Your task to perform on an android device: Search for usb-a to usb-b on amazon, select the first entry, and add it to the cart. Image 0: 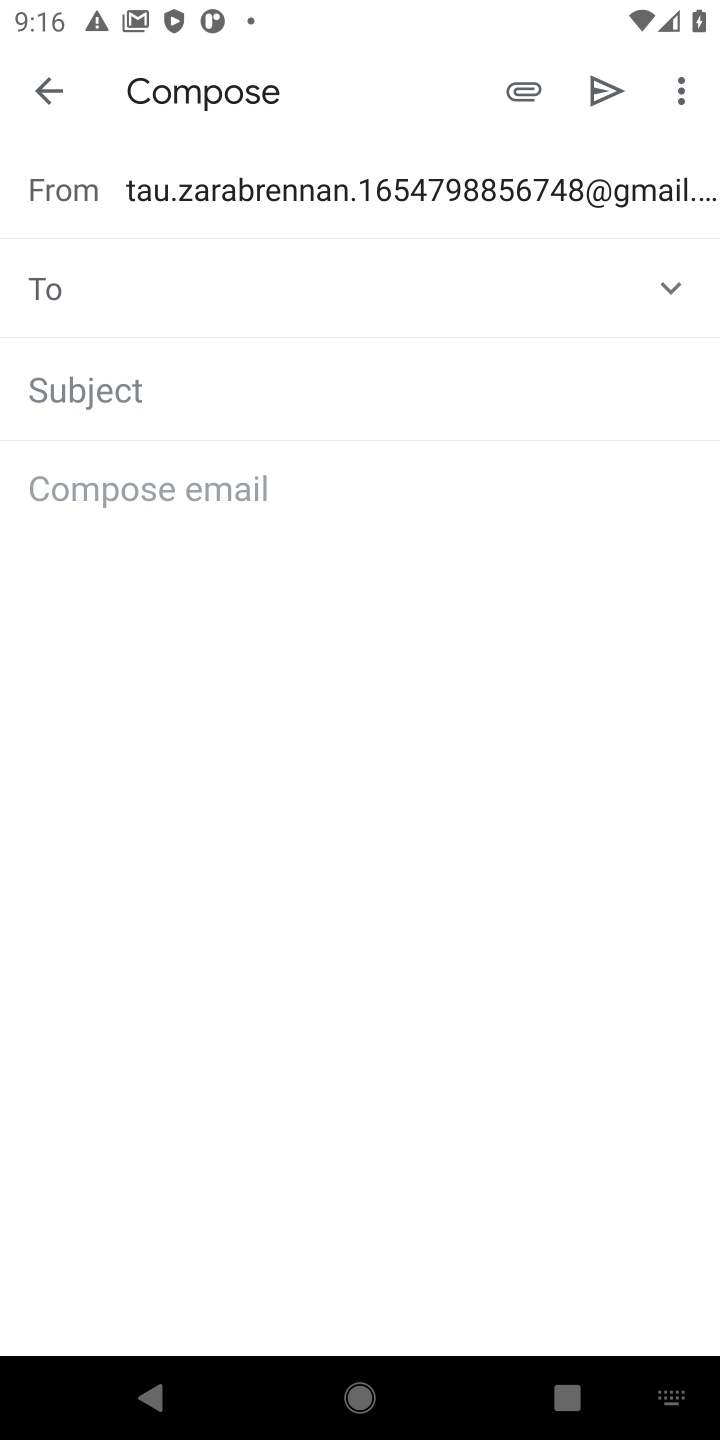
Step 0: press home button
Your task to perform on an android device: Search for usb-a to usb-b on amazon, select the first entry, and add it to the cart. Image 1: 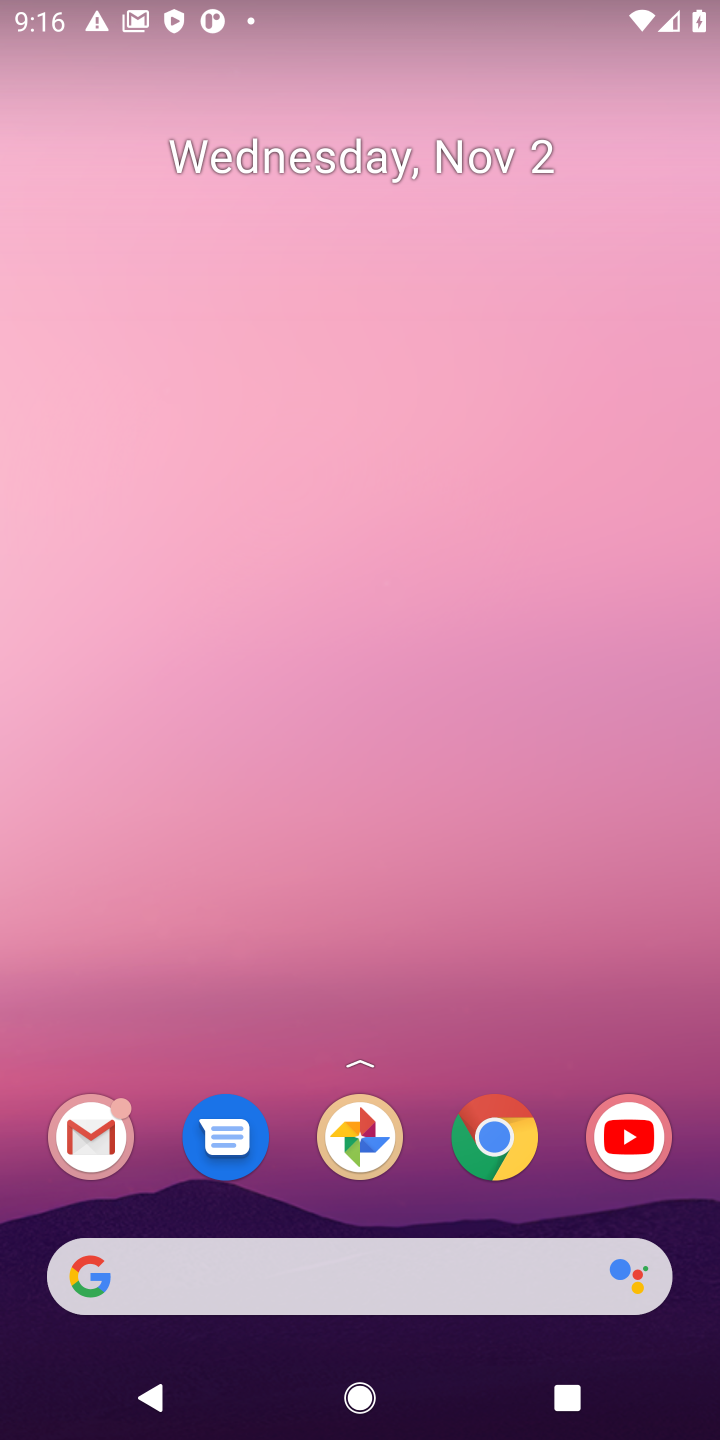
Step 1: click (499, 1140)
Your task to perform on an android device: Search for usb-a to usb-b on amazon, select the first entry, and add it to the cart. Image 2: 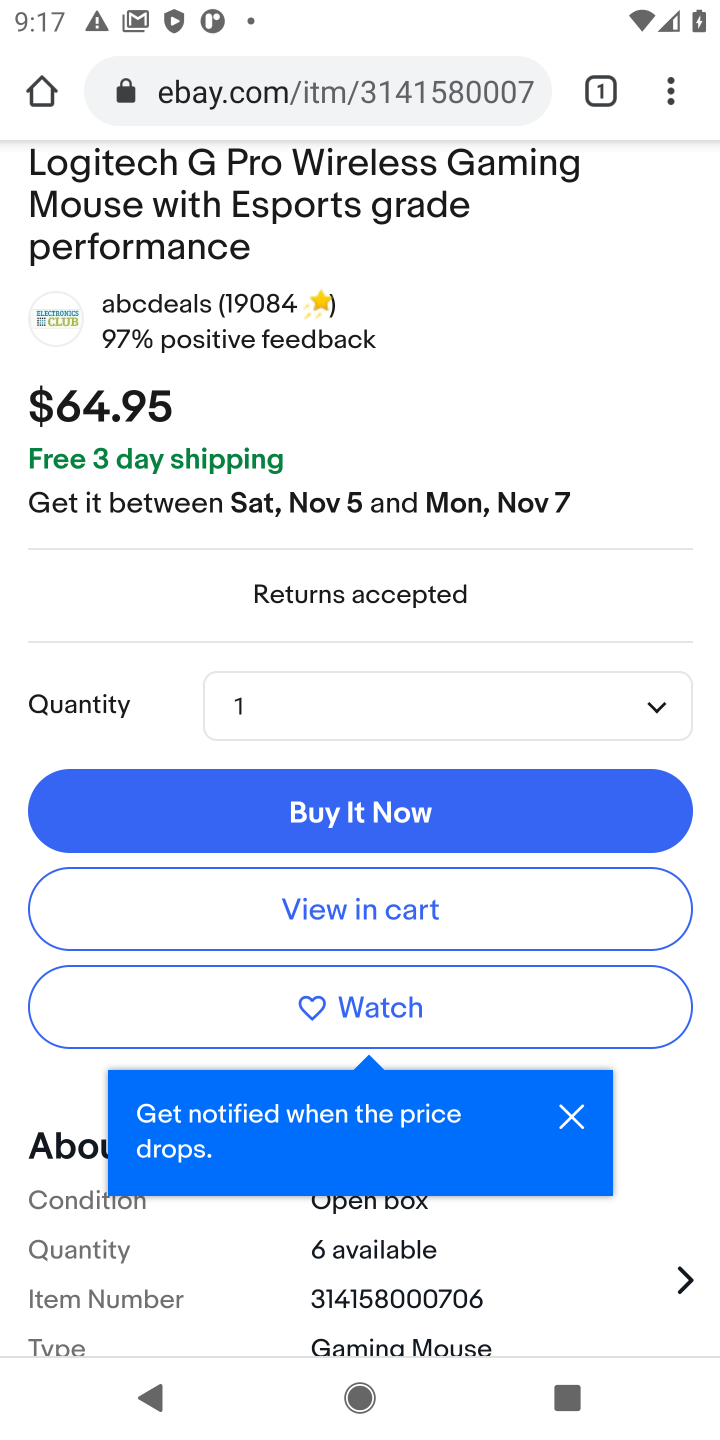
Step 2: click (373, 55)
Your task to perform on an android device: Search for usb-a to usb-b on amazon, select the first entry, and add it to the cart. Image 3: 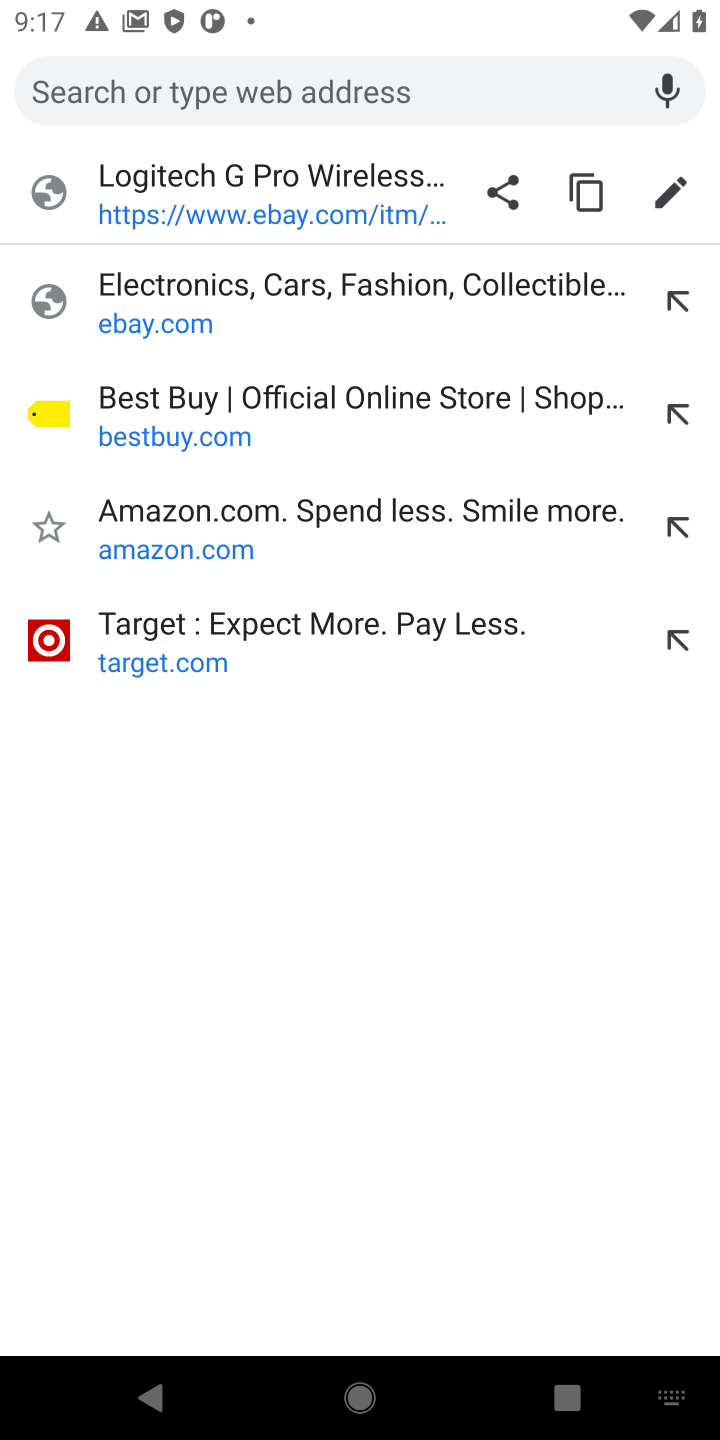
Step 3: click (373, 55)
Your task to perform on an android device: Search for usb-a to usb-b on amazon, select the first entry, and add it to the cart. Image 4: 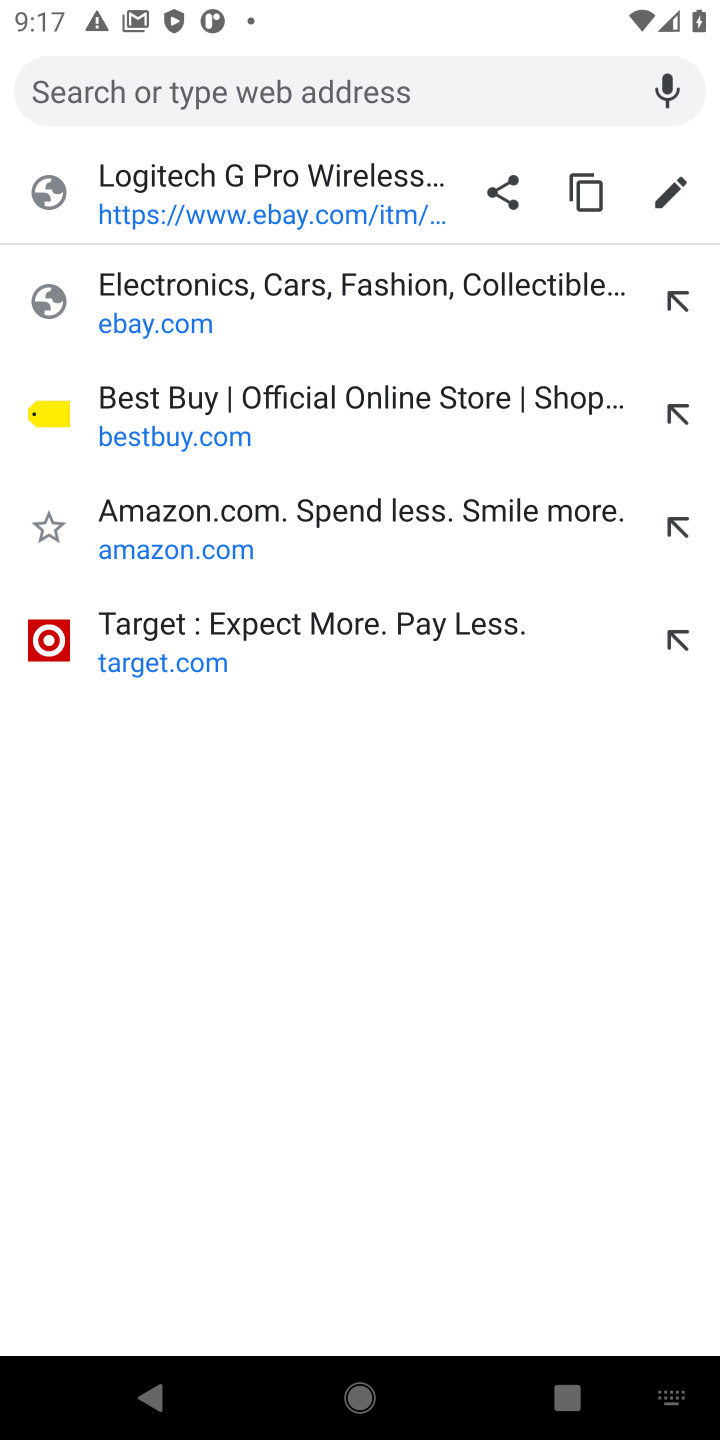
Step 4: type "amazon"
Your task to perform on an android device: Search for usb-a to usb-b on amazon, select the first entry, and add it to the cart. Image 5: 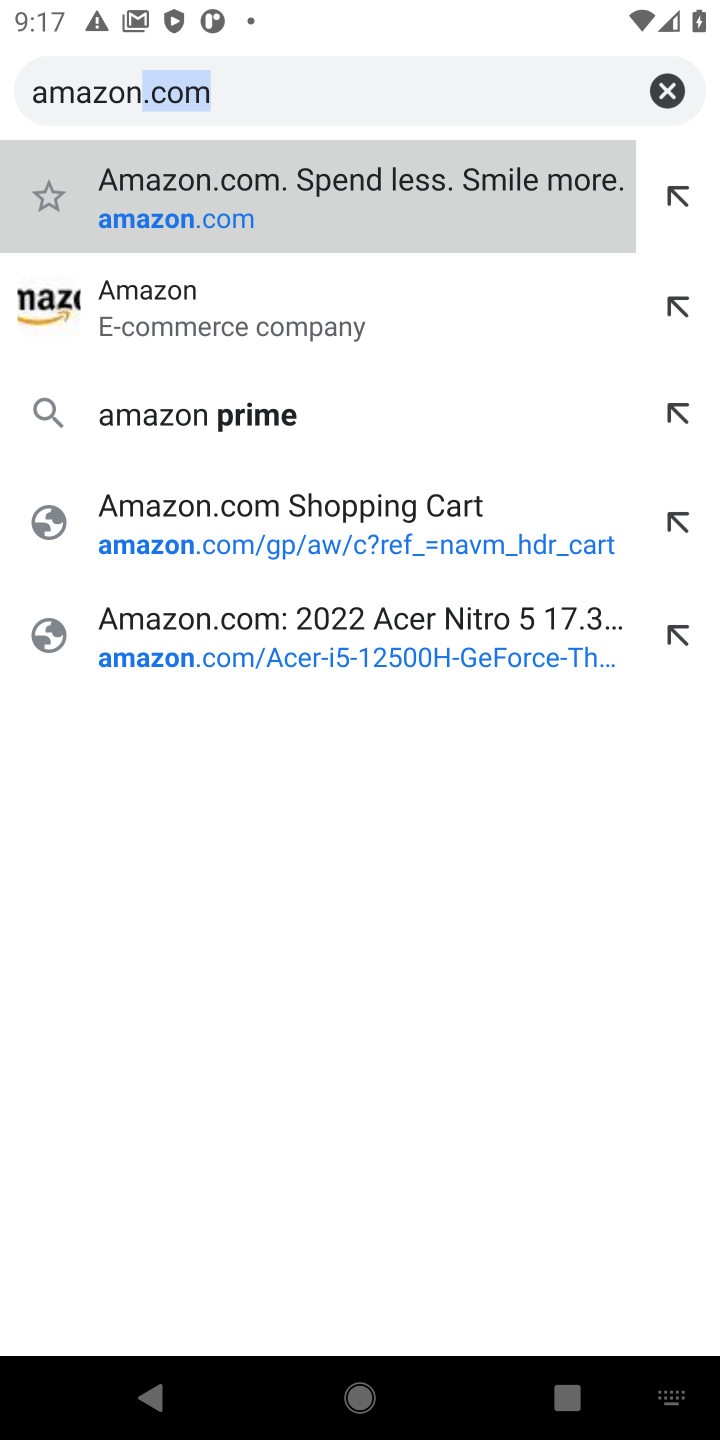
Step 5: click (112, 166)
Your task to perform on an android device: Search for usb-a to usb-b on amazon, select the first entry, and add it to the cart. Image 6: 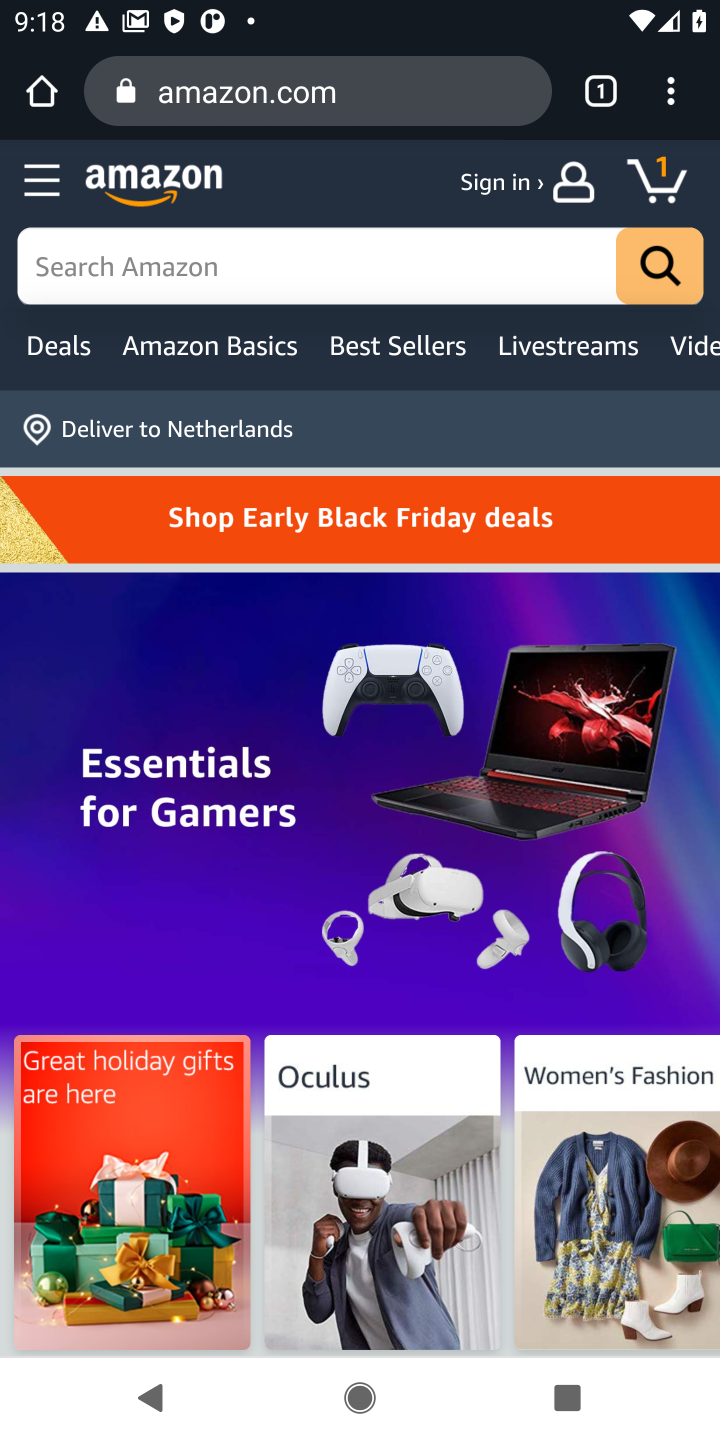
Step 6: click (308, 261)
Your task to perform on an android device: Search for usb-a to usb-b on amazon, select the first entry, and add it to the cart. Image 7: 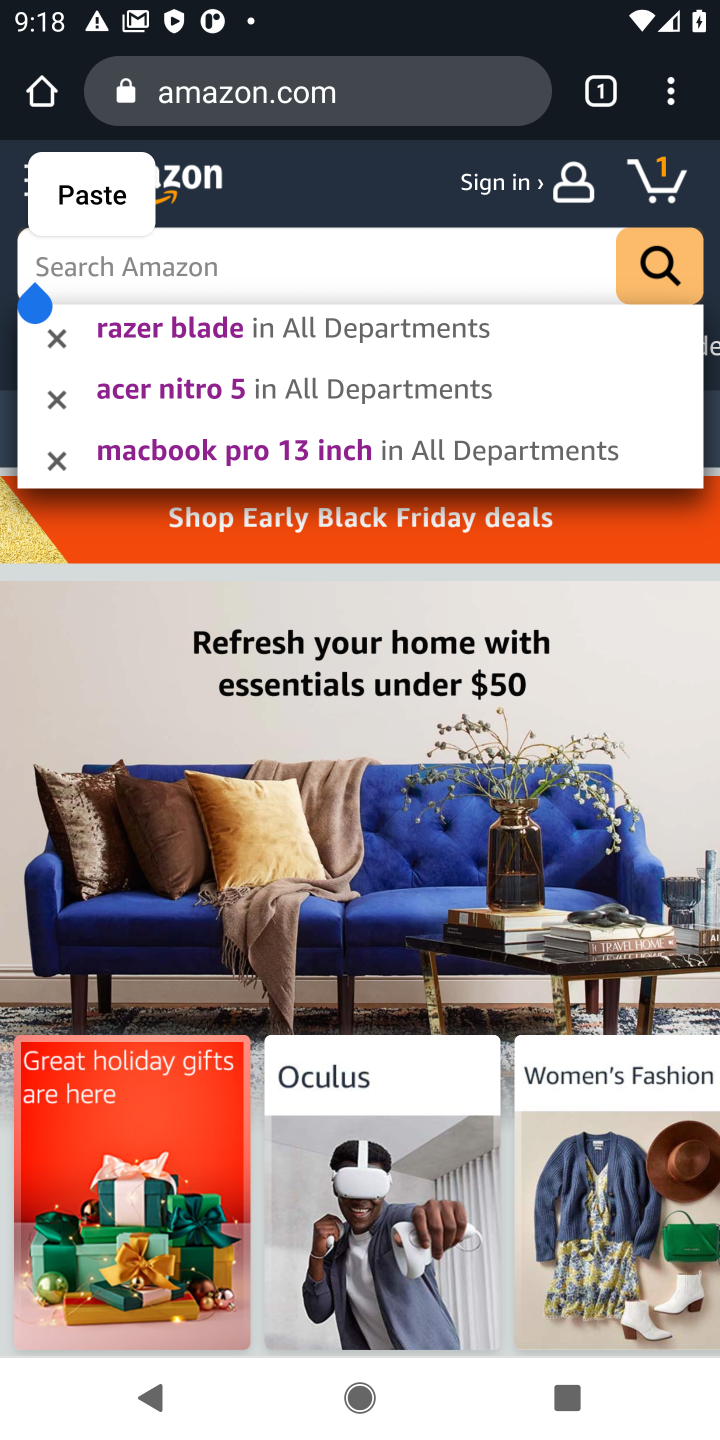
Step 7: type "usb-a to usb-b"
Your task to perform on an android device: Search for usb-a to usb-b on amazon, select the first entry, and add it to the cart. Image 8: 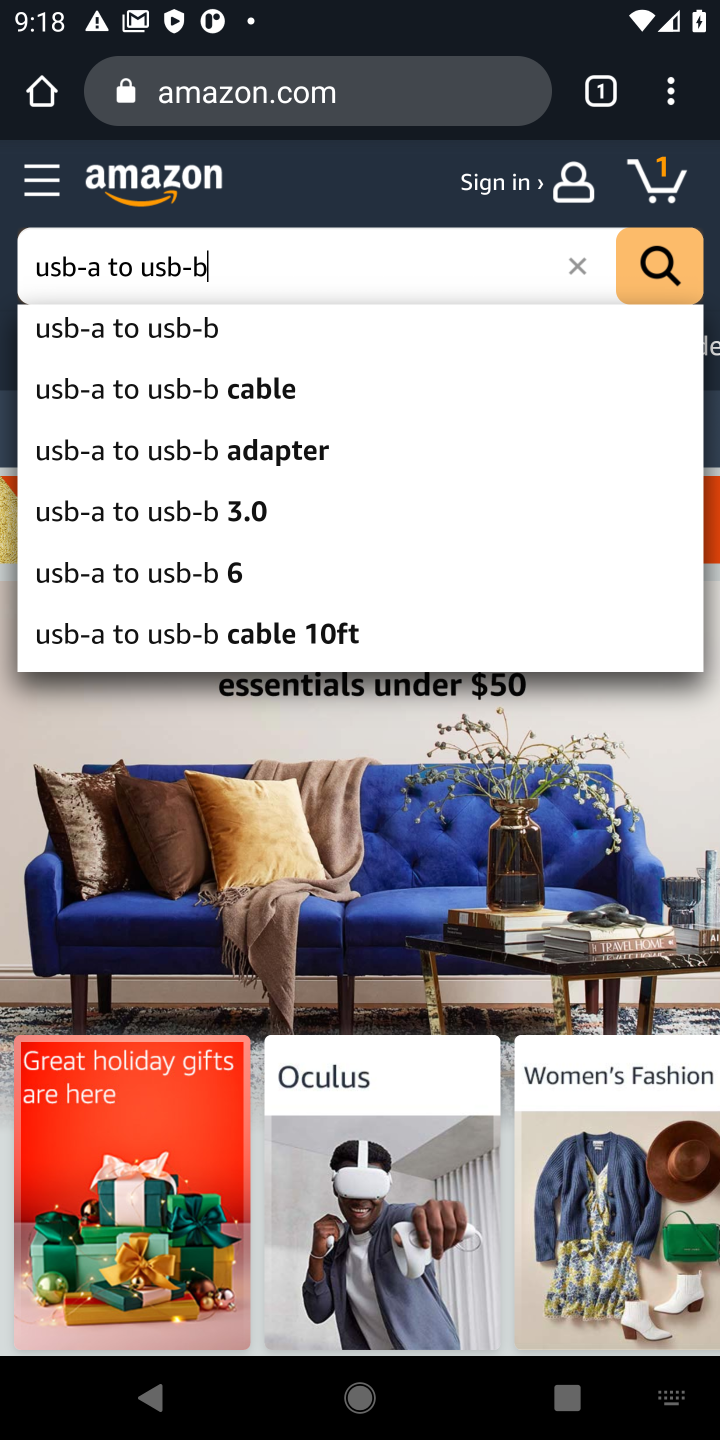
Step 8: click (143, 328)
Your task to perform on an android device: Search for usb-a to usb-b on amazon, select the first entry, and add it to the cart. Image 9: 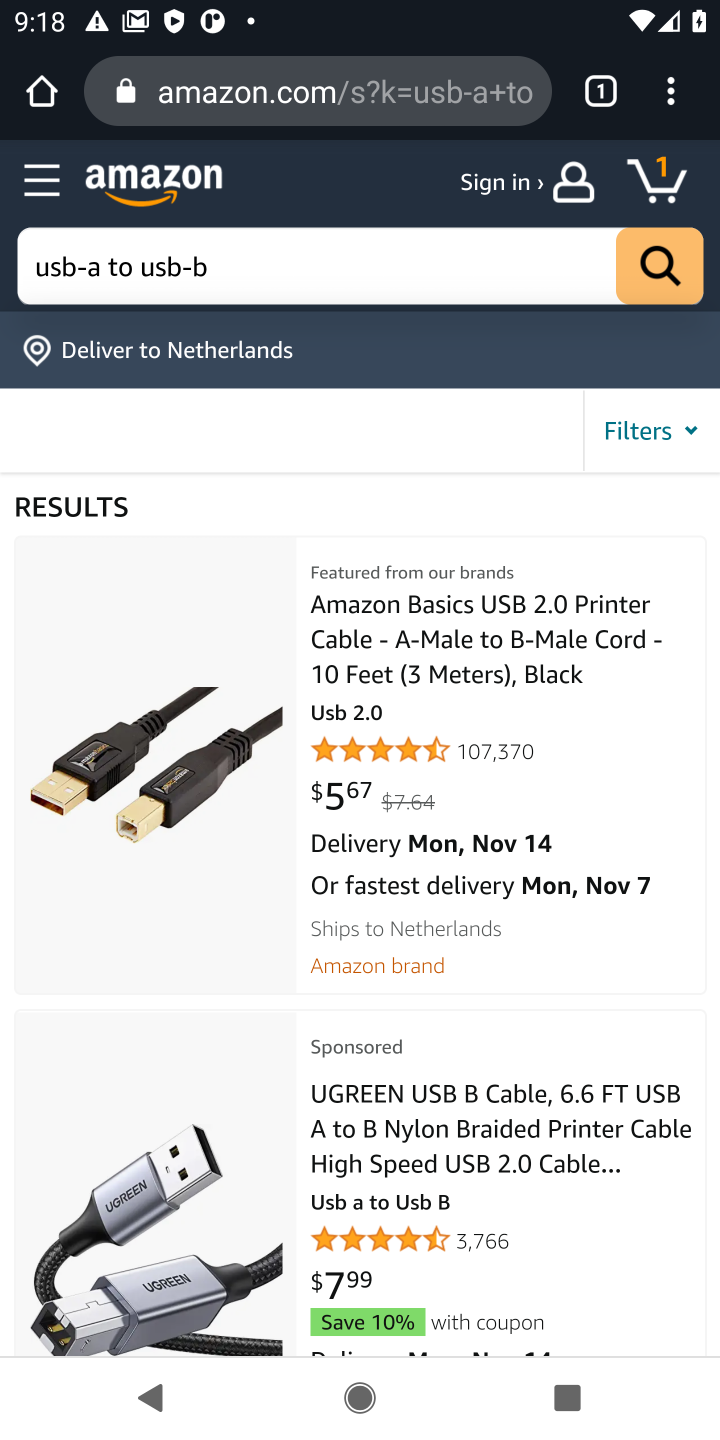
Step 9: drag from (452, 1084) to (505, 613)
Your task to perform on an android device: Search for usb-a to usb-b on amazon, select the first entry, and add it to the cart. Image 10: 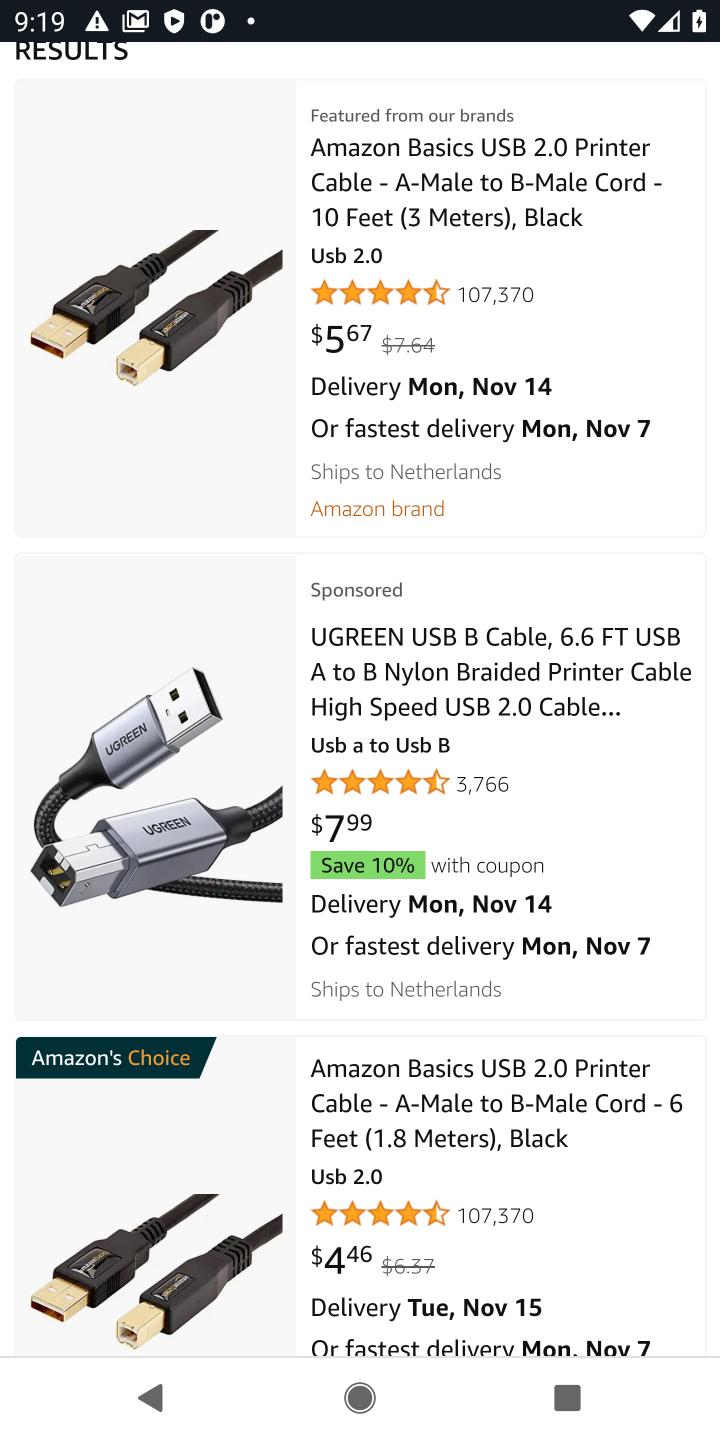
Step 10: drag from (451, 1153) to (438, 639)
Your task to perform on an android device: Search for usb-a to usb-b on amazon, select the first entry, and add it to the cart. Image 11: 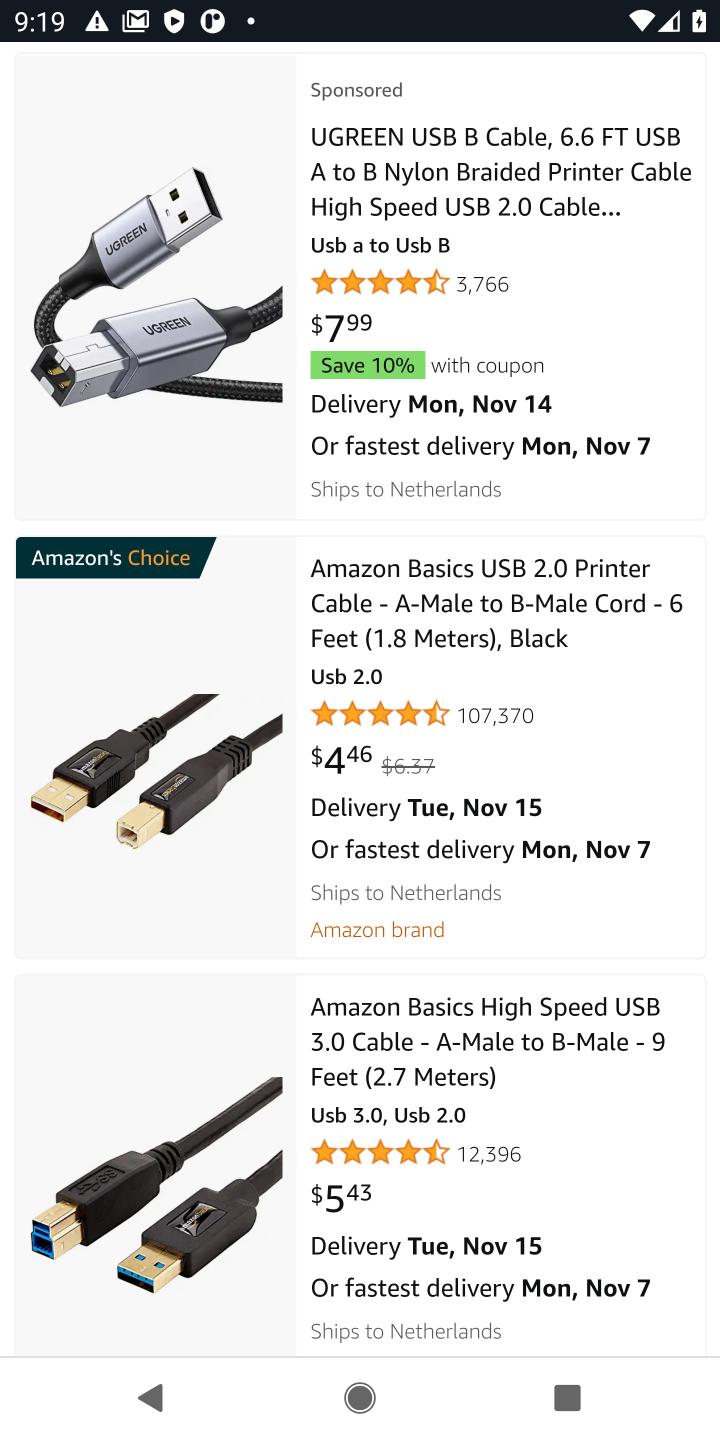
Step 11: drag from (438, 601) to (457, 1248)
Your task to perform on an android device: Search for usb-a to usb-b on amazon, select the first entry, and add it to the cart. Image 12: 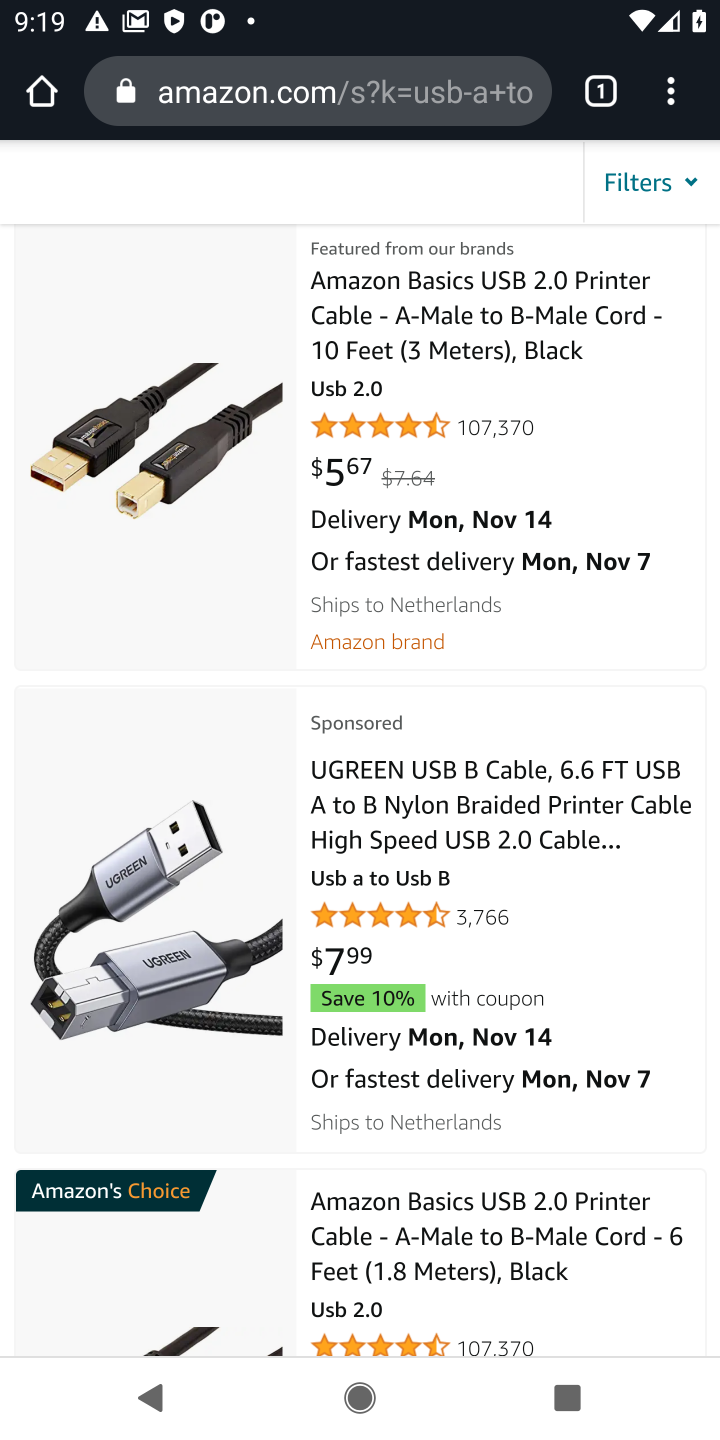
Step 12: drag from (447, 386) to (421, 1014)
Your task to perform on an android device: Search for usb-a to usb-b on amazon, select the first entry, and add it to the cart. Image 13: 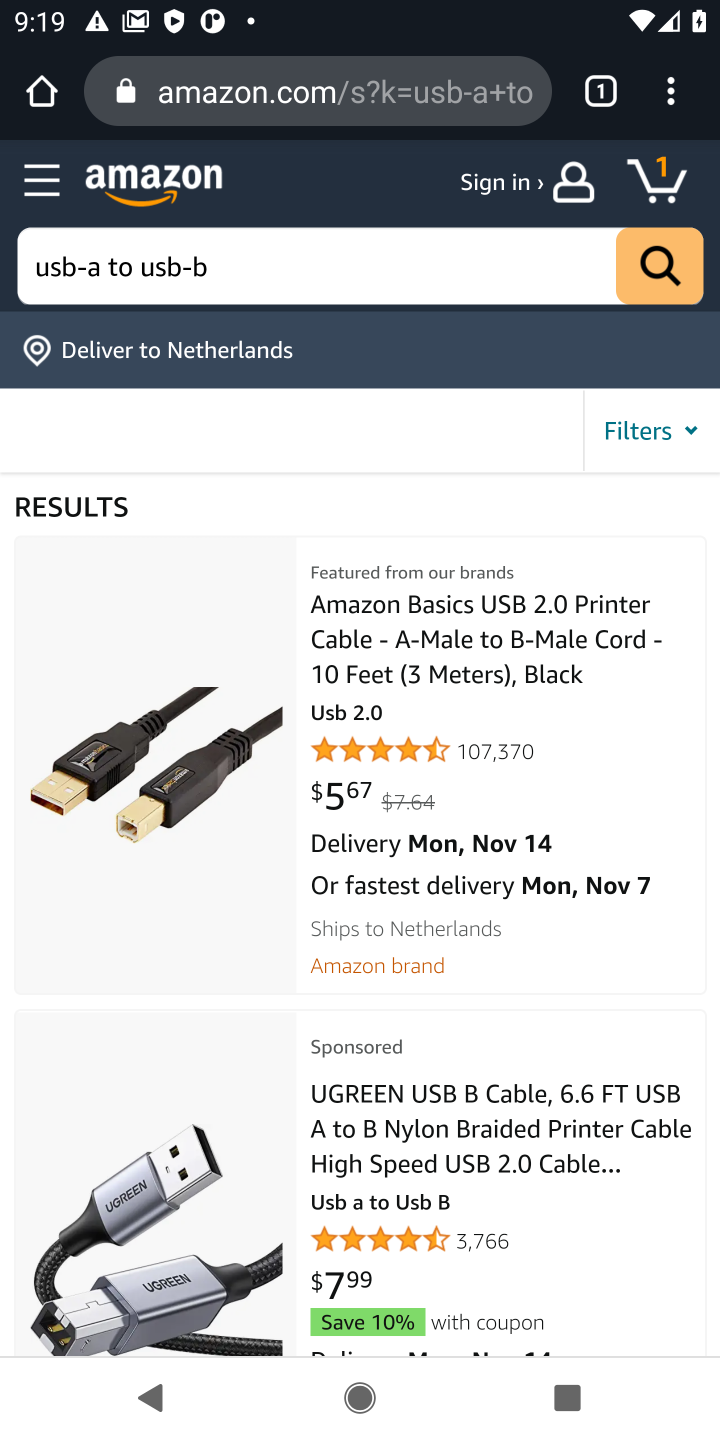
Step 13: click (434, 628)
Your task to perform on an android device: Search for usb-a to usb-b on amazon, select the first entry, and add it to the cart. Image 14: 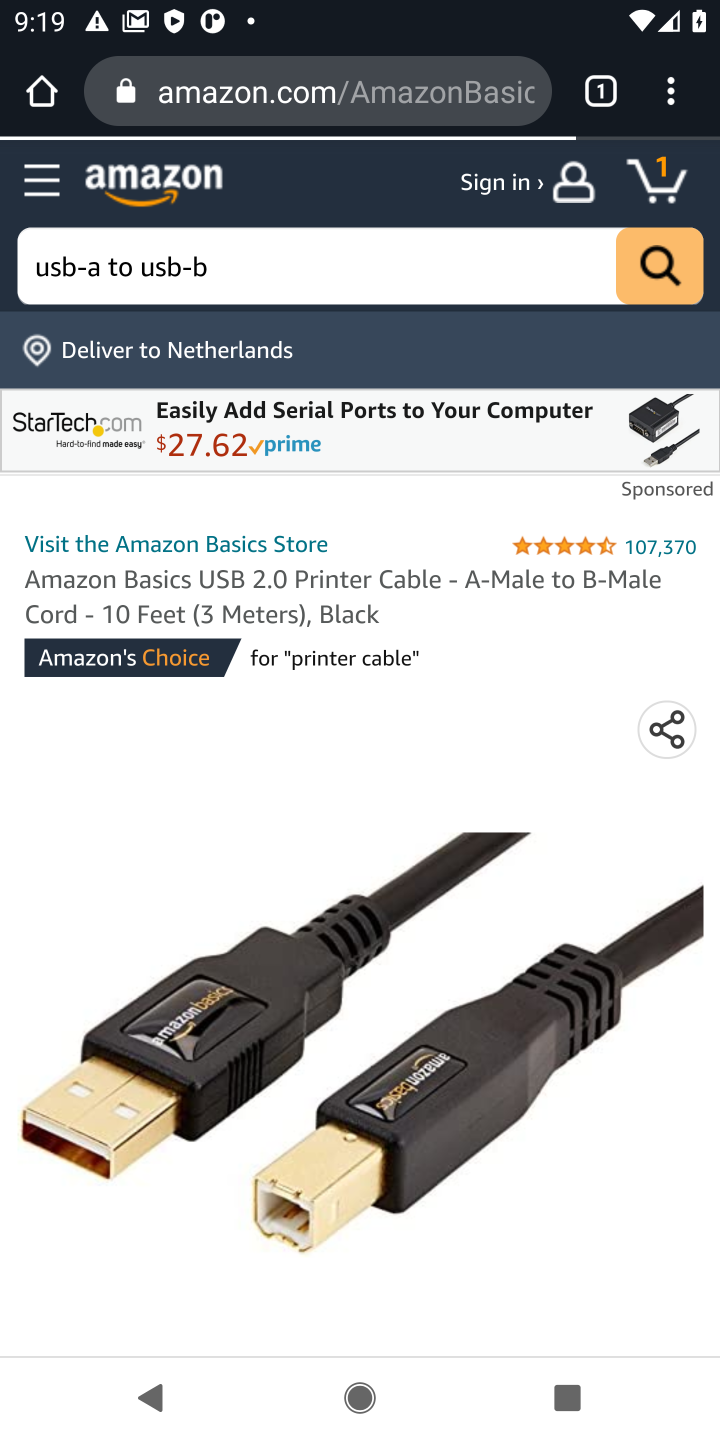
Step 14: drag from (425, 1107) to (381, 505)
Your task to perform on an android device: Search for usb-a to usb-b on amazon, select the first entry, and add it to the cart. Image 15: 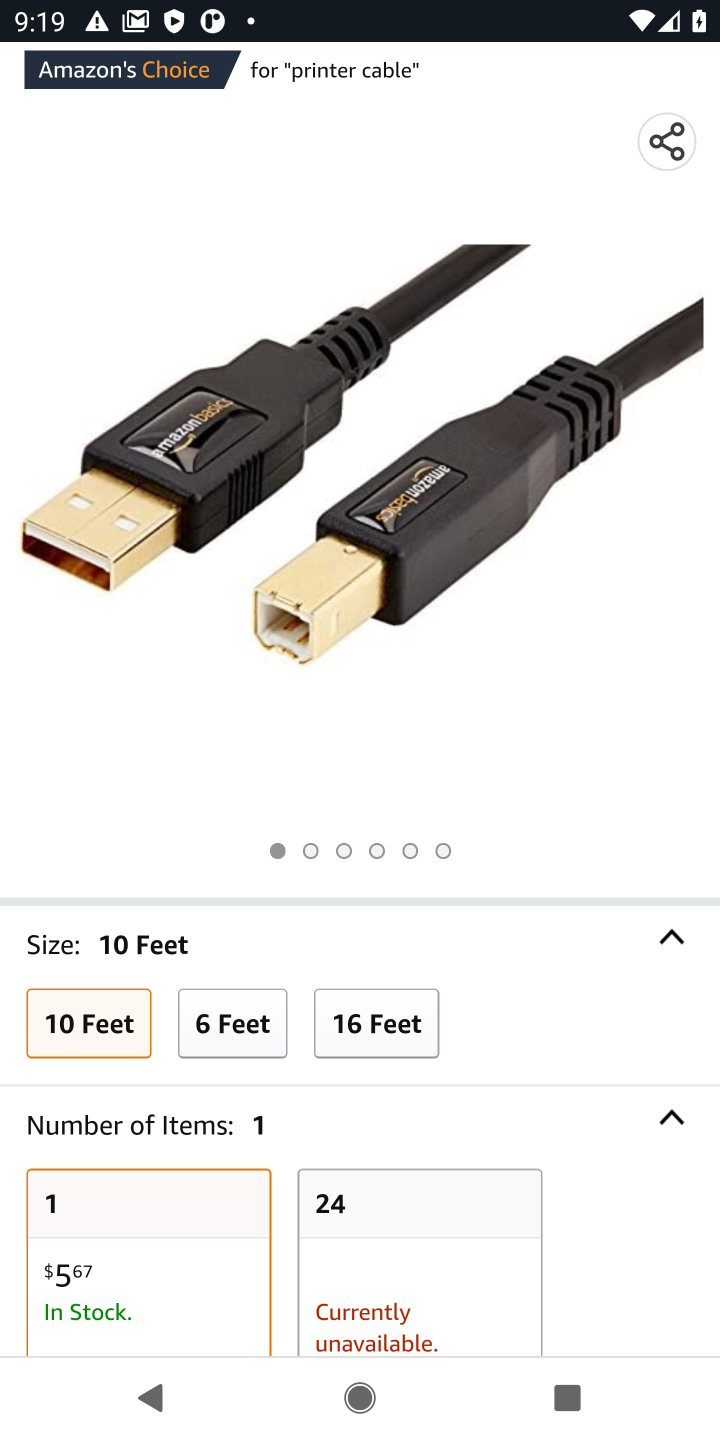
Step 15: drag from (500, 1094) to (398, 455)
Your task to perform on an android device: Search for usb-a to usb-b on amazon, select the first entry, and add it to the cart. Image 16: 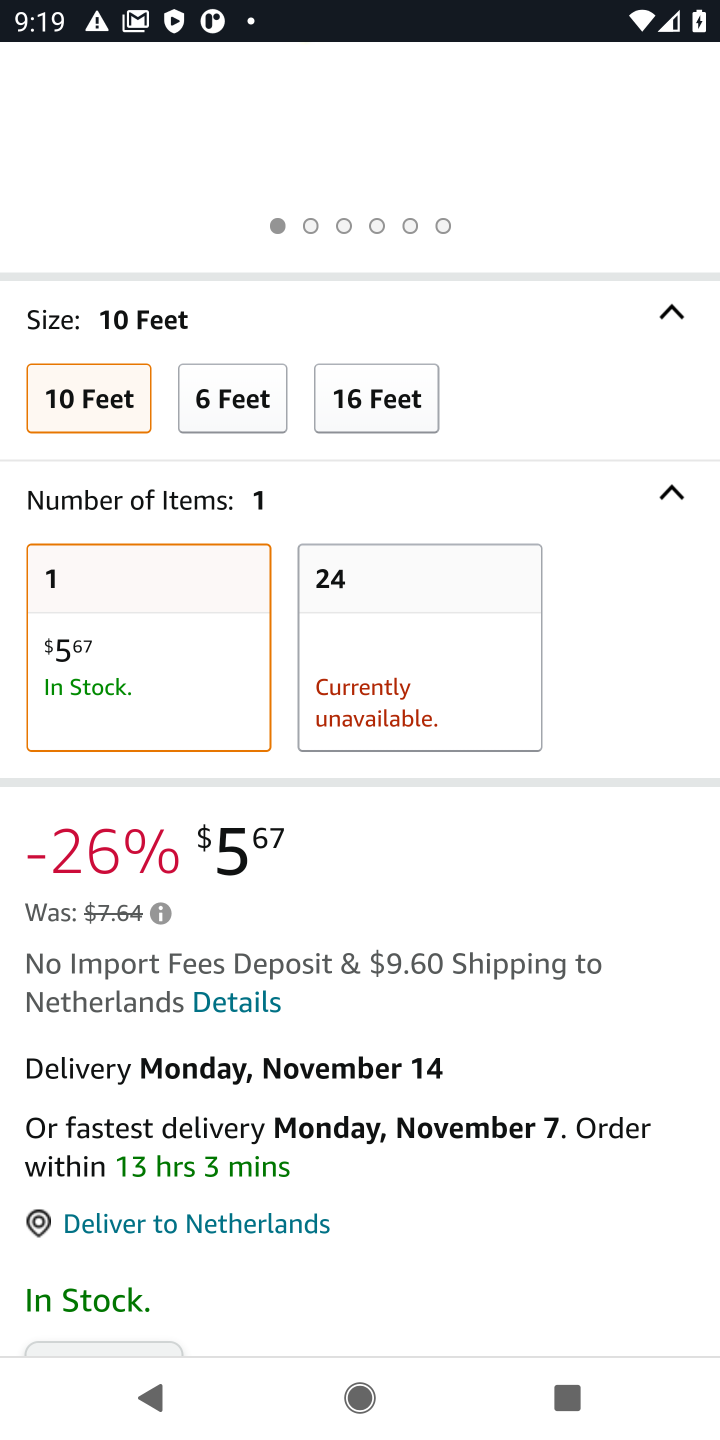
Step 16: drag from (415, 1208) to (352, 232)
Your task to perform on an android device: Search for usb-a to usb-b on amazon, select the first entry, and add it to the cart. Image 17: 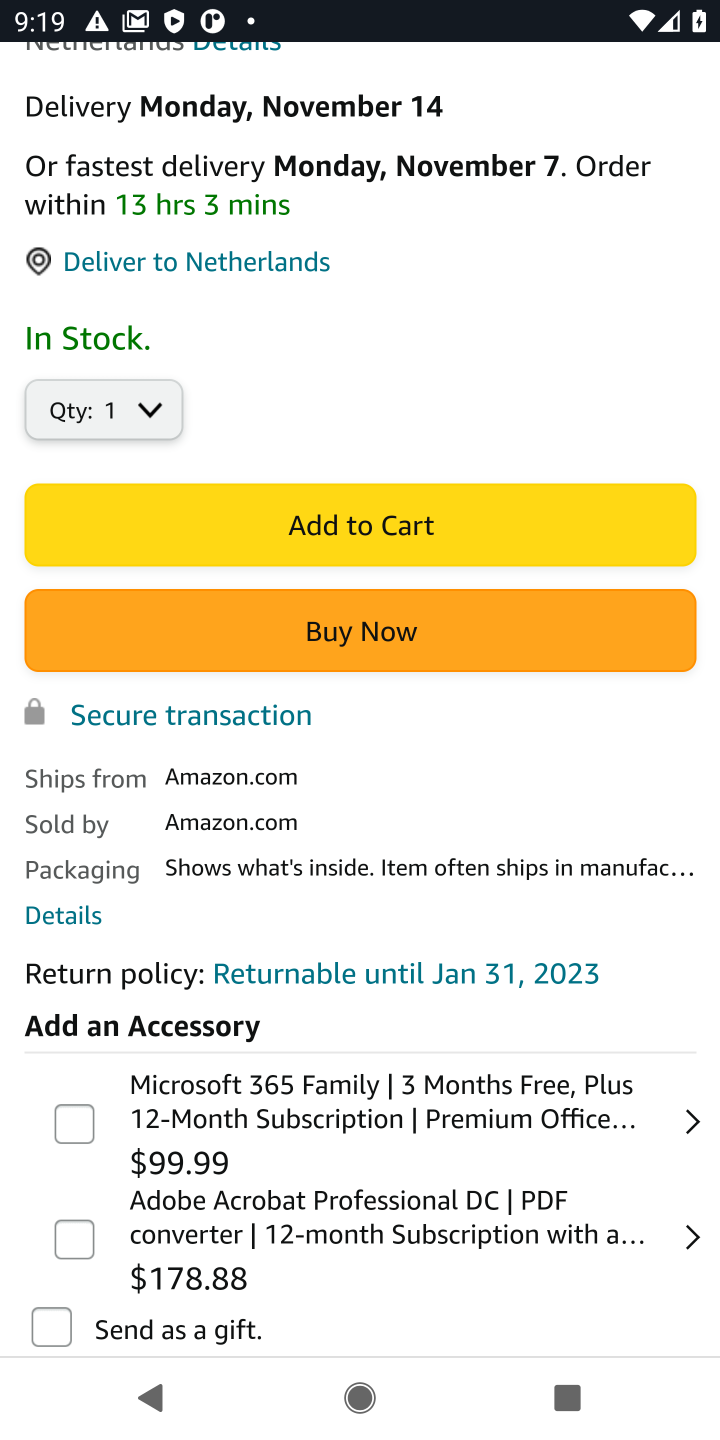
Step 17: click (369, 527)
Your task to perform on an android device: Search for usb-a to usb-b on amazon, select the first entry, and add it to the cart. Image 18: 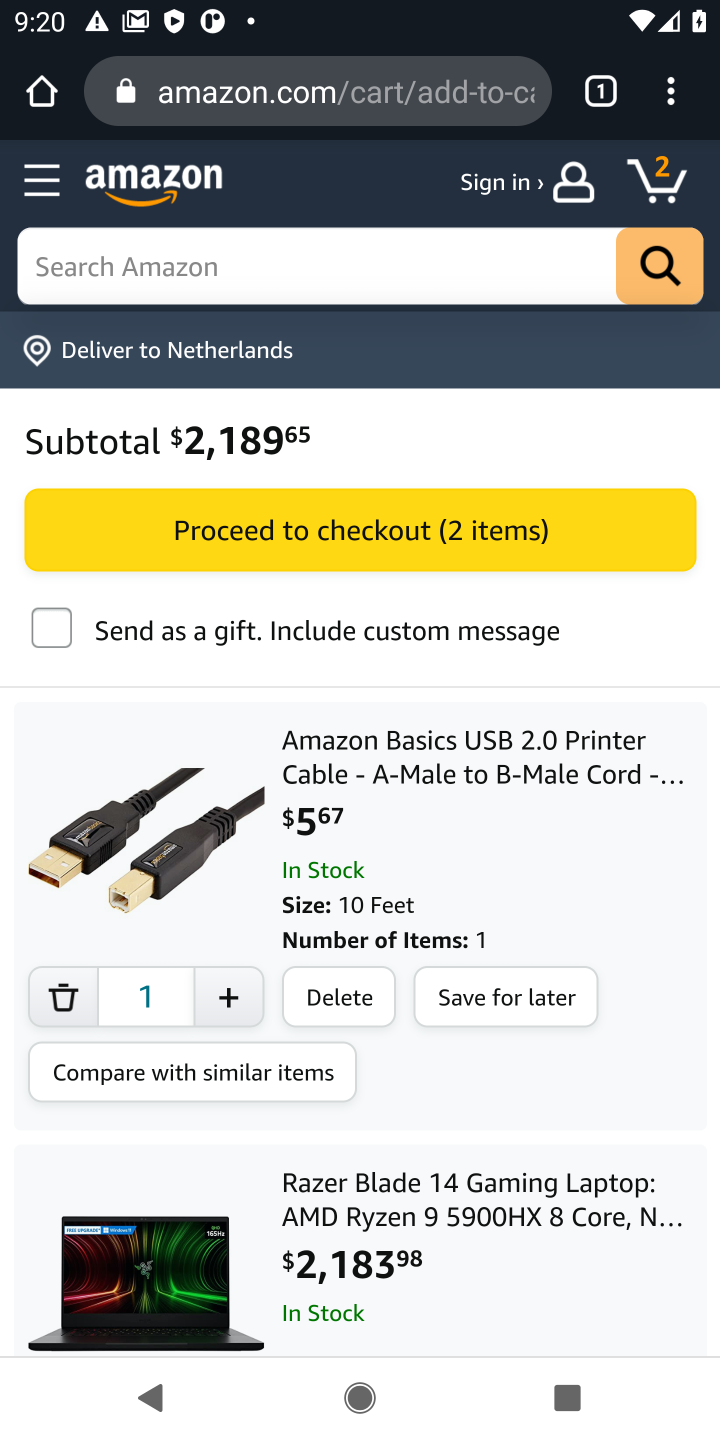
Step 18: task complete